Your task to perform on an android device: change the upload size in google photos Image 0: 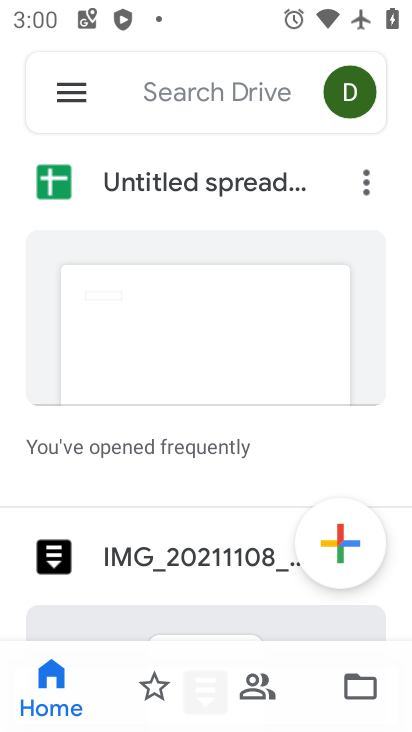
Step 0: press home button
Your task to perform on an android device: change the upload size in google photos Image 1: 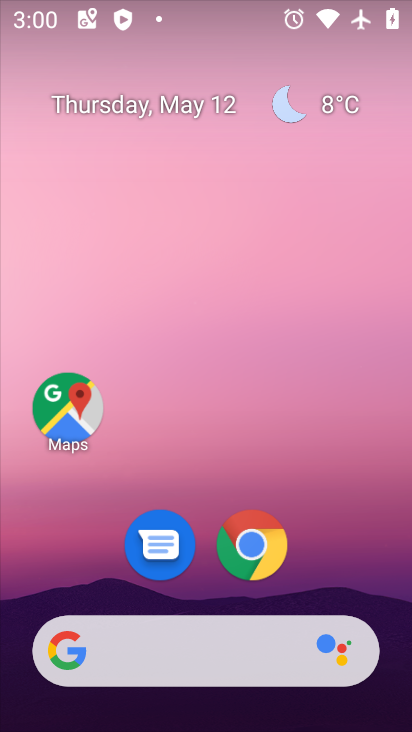
Step 1: drag from (367, 592) to (299, 98)
Your task to perform on an android device: change the upload size in google photos Image 2: 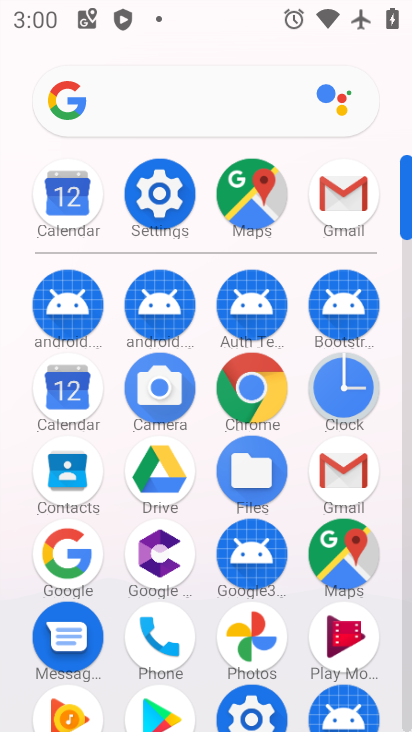
Step 2: click (407, 717)
Your task to perform on an android device: change the upload size in google photos Image 3: 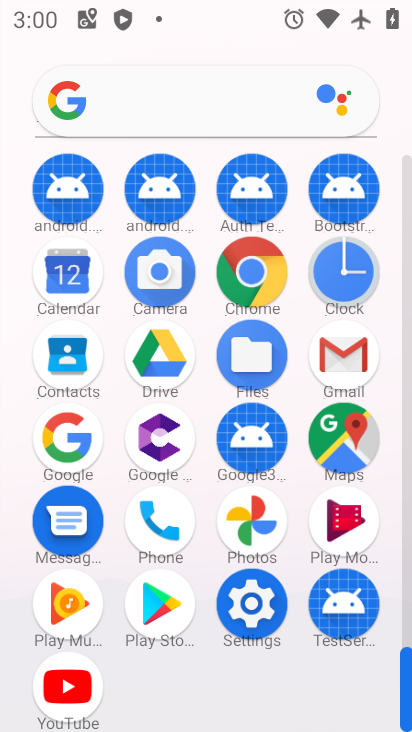
Step 3: click (249, 517)
Your task to perform on an android device: change the upload size in google photos Image 4: 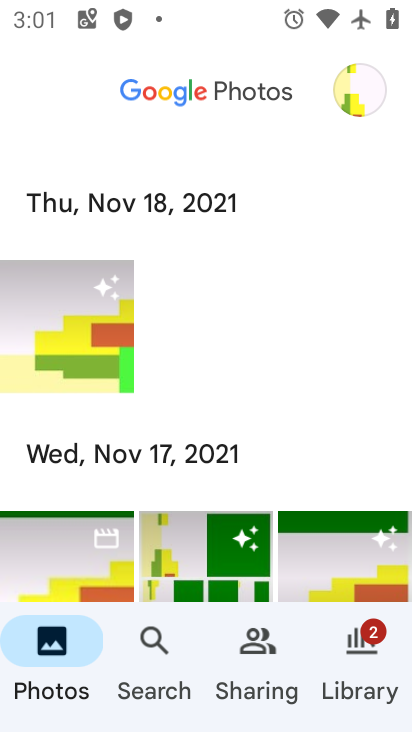
Step 4: click (361, 96)
Your task to perform on an android device: change the upload size in google photos Image 5: 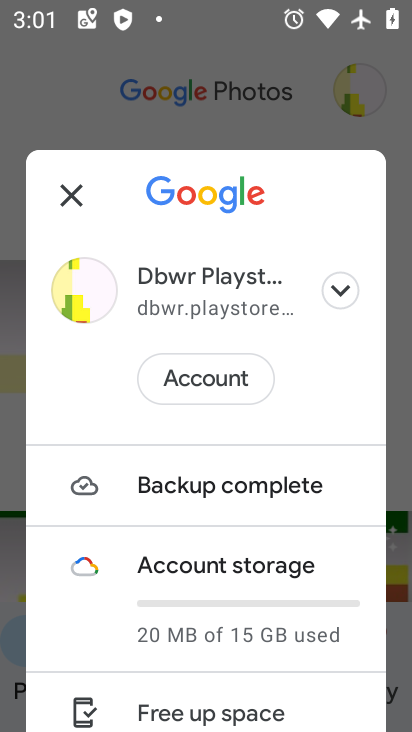
Step 5: drag from (227, 611) to (270, 296)
Your task to perform on an android device: change the upload size in google photos Image 6: 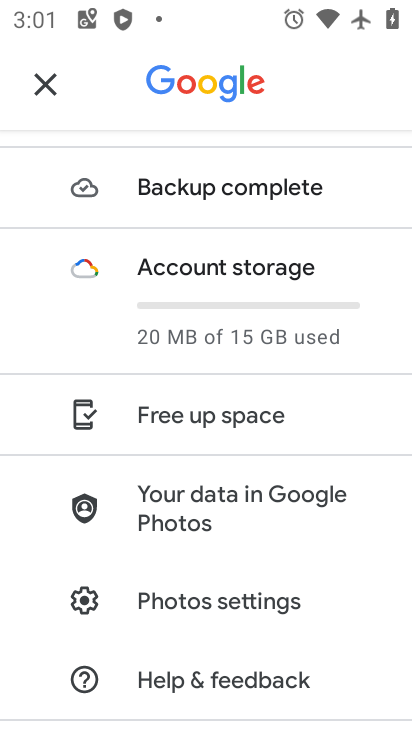
Step 6: click (182, 606)
Your task to perform on an android device: change the upload size in google photos Image 7: 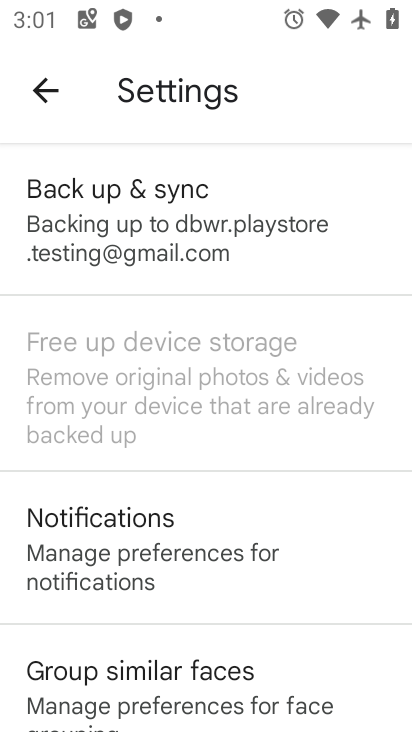
Step 7: click (134, 211)
Your task to perform on an android device: change the upload size in google photos Image 8: 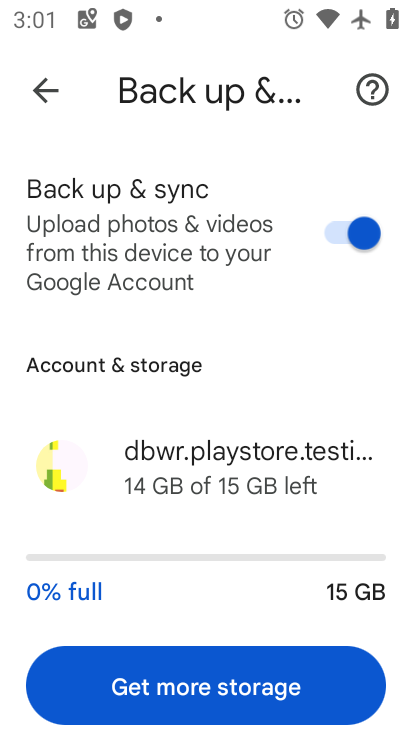
Step 8: drag from (230, 593) to (266, 121)
Your task to perform on an android device: change the upload size in google photos Image 9: 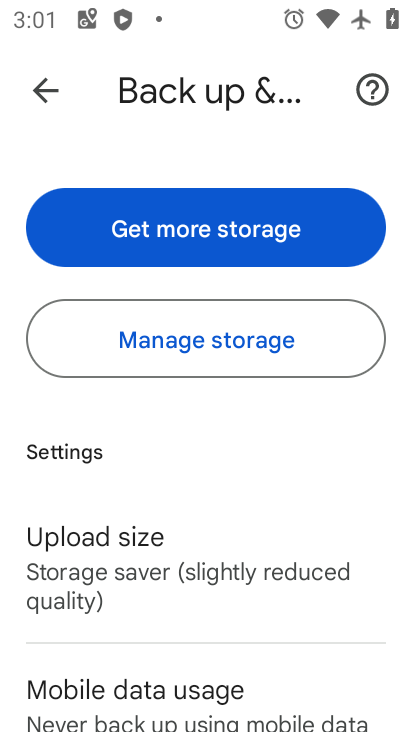
Step 9: drag from (218, 596) to (338, 190)
Your task to perform on an android device: change the upload size in google photos Image 10: 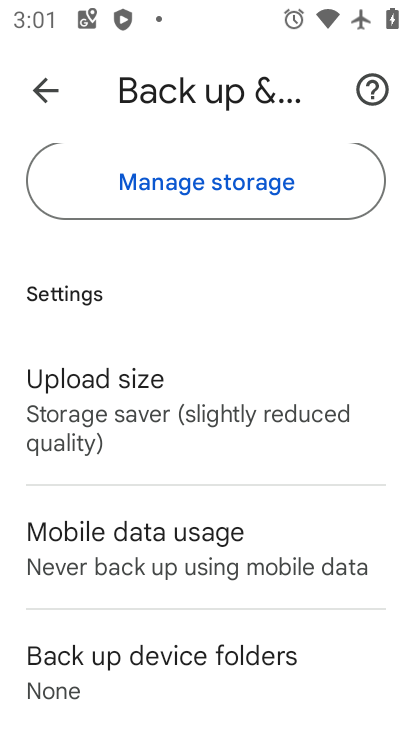
Step 10: click (99, 392)
Your task to perform on an android device: change the upload size in google photos Image 11: 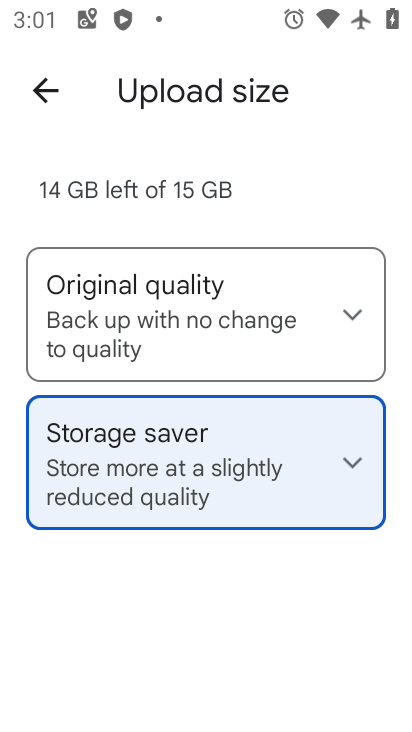
Step 11: click (149, 323)
Your task to perform on an android device: change the upload size in google photos Image 12: 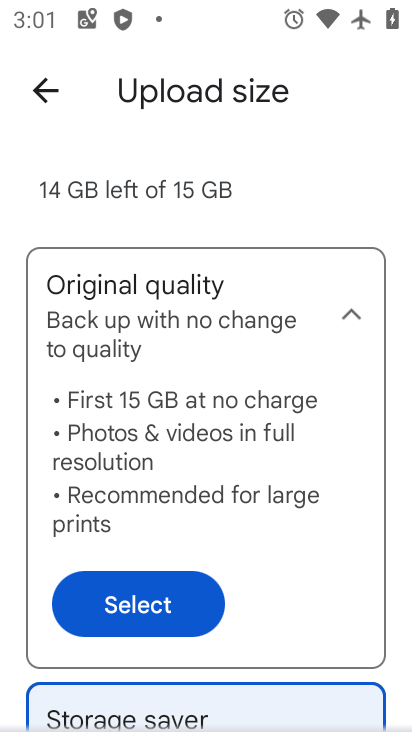
Step 12: click (112, 593)
Your task to perform on an android device: change the upload size in google photos Image 13: 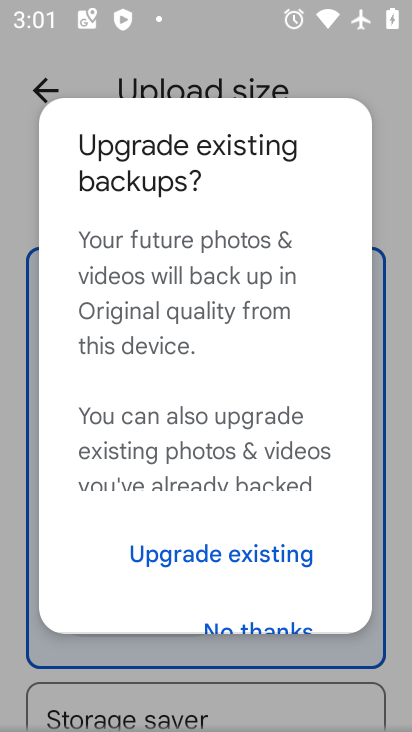
Step 13: click (247, 620)
Your task to perform on an android device: change the upload size in google photos Image 14: 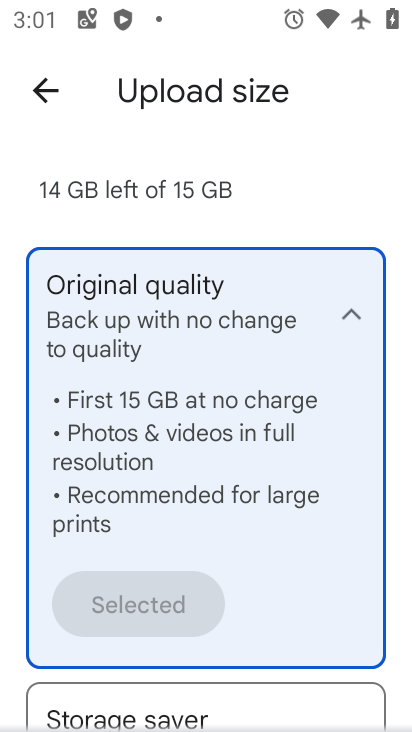
Step 14: task complete